Your task to perform on an android device: turn off improve location accuracy Image 0: 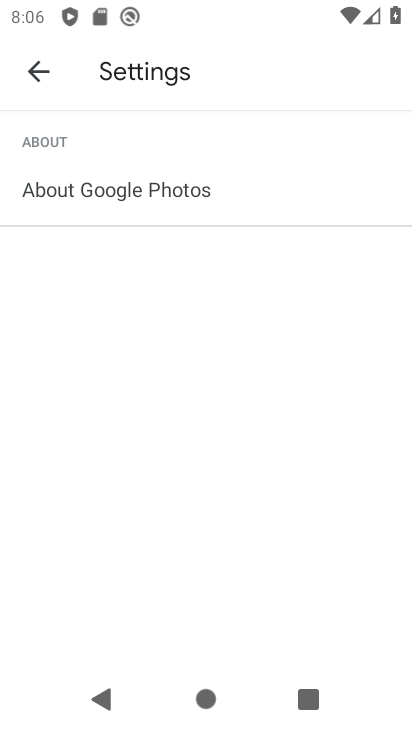
Step 0: press home button
Your task to perform on an android device: turn off improve location accuracy Image 1: 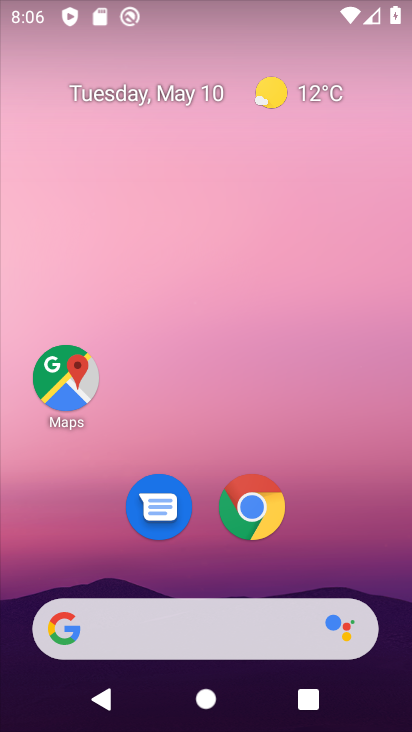
Step 1: drag from (67, 569) to (224, 72)
Your task to perform on an android device: turn off improve location accuracy Image 2: 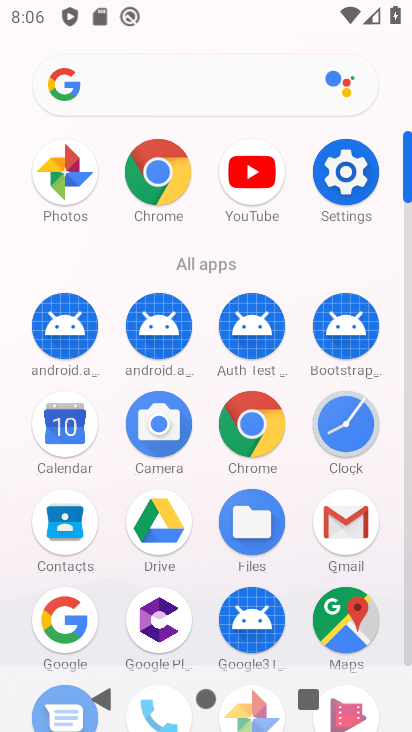
Step 2: click (326, 202)
Your task to perform on an android device: turn off improve location accuracy Image 3: 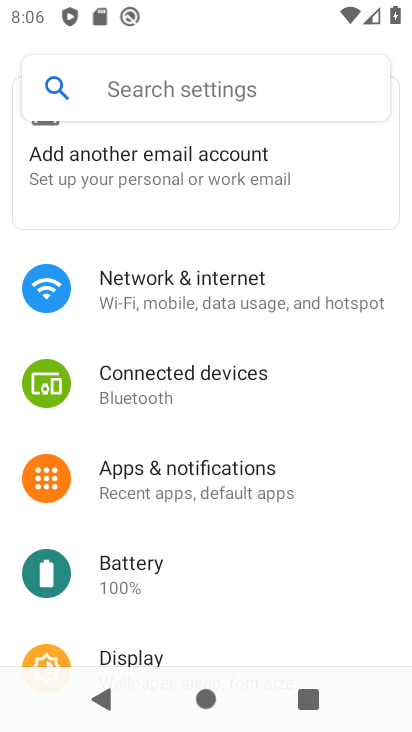
Step 3: drag from (242, 642) to (282, 251)
Your task to perform on an android device: turn off improve location accuracy Image 4: 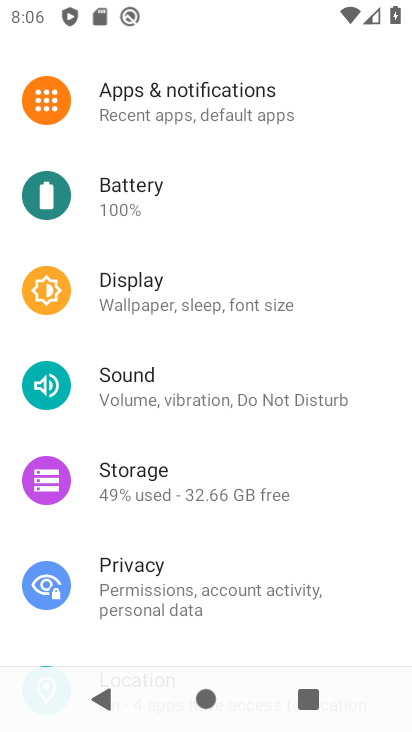
Step 4: drag from (188, 615) to (262, 266)
Your task to perform on an android device: turn off improve location accuracy Image 5: 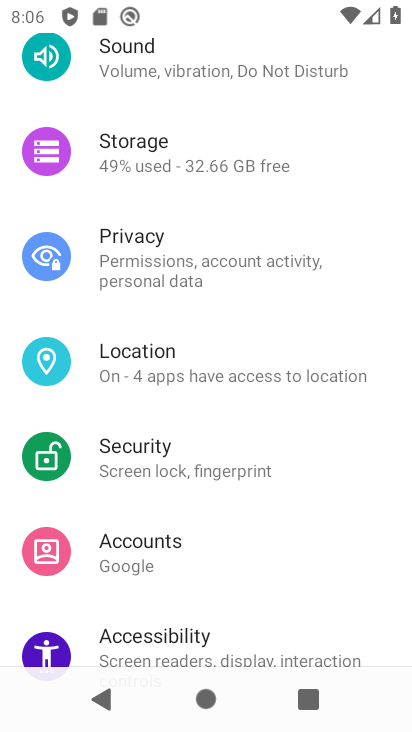
Step 5: drag from (203, 614) to (270, 348)
Your task to perform on an android device: turn off improve location accuracy Image 6: 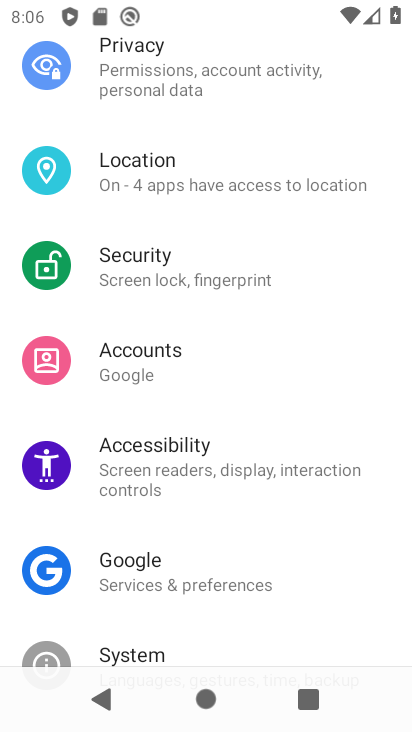
Step 6: drag from (209, 602) to (252, 625)
Your task to perform on an android device: turn off improve location accuracy Image 7: 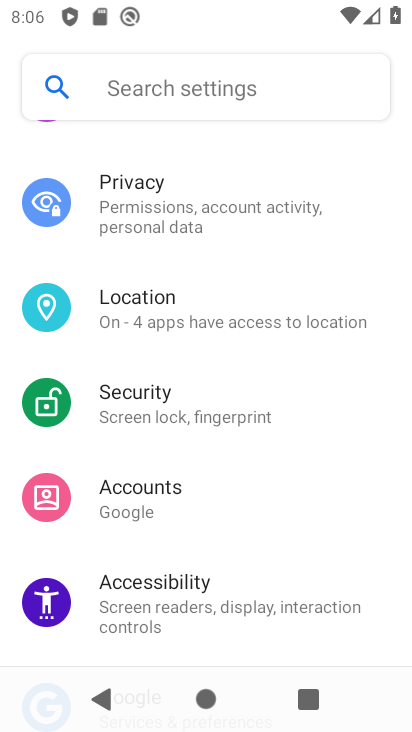
Step 7: drag from (259, 317) to (257, 499)
Your task to perform on an android device: turn off improve location accuracy Image 8: 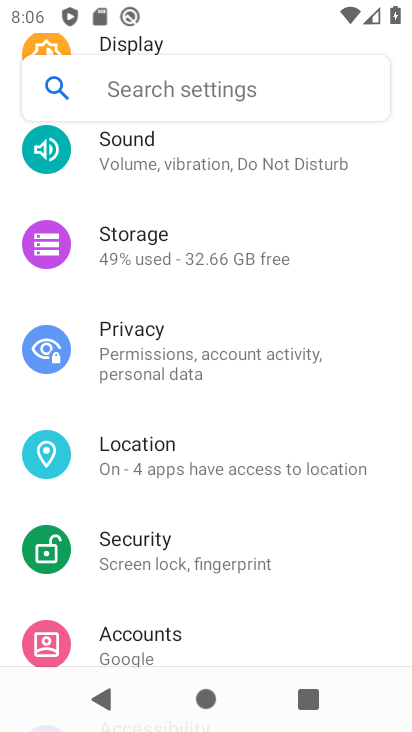
Step 8: drag from (218, 220) to (261, 392)
Your task to perform on an android device: turn off improve location accuracy Image 9: 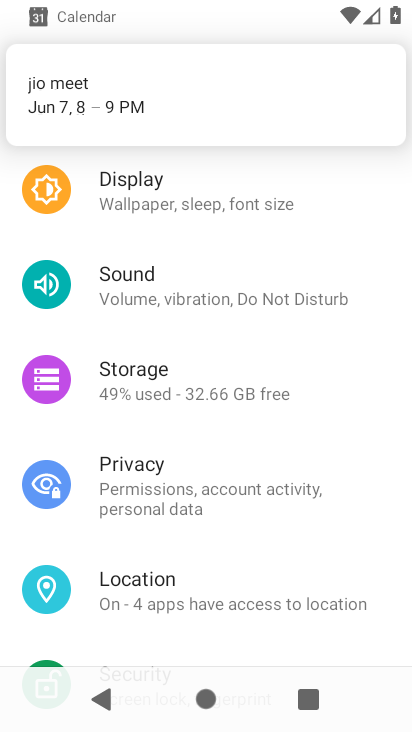
Step 9: click (190, 575)
Your task to perform on an android device: turn off improve location accuracy Image 10: 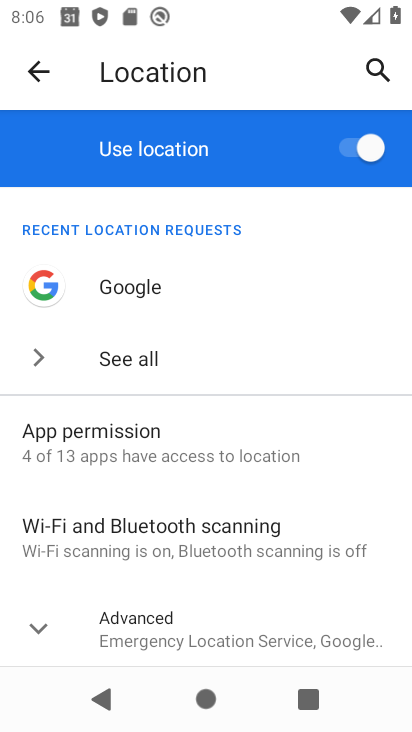
Step 10: click (165, 646)
Your task to perform on an android device: turn off improve location accuracy Image 11: 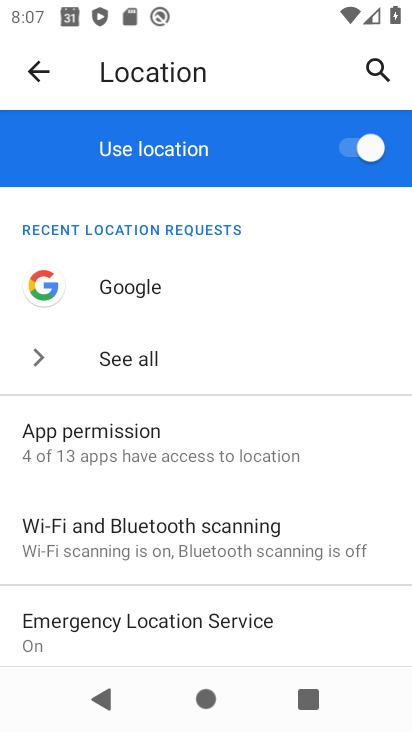
Step 11: drag from (261, 628) to (279, 305)
Your task to perform on an android device: turn off improve location accuracy Image 12: 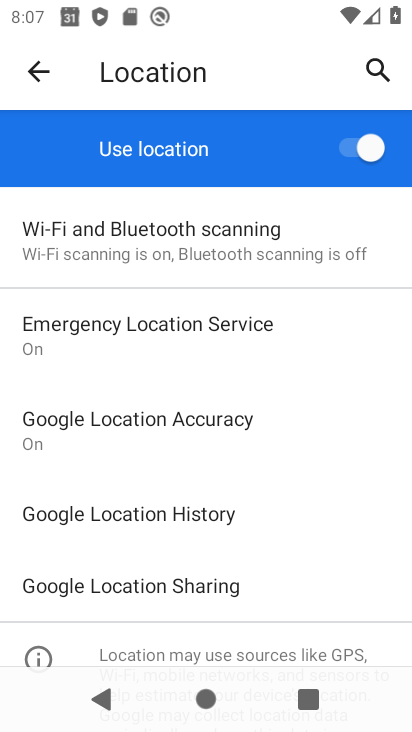
Step 12: click (130, 430)
Your task to perform on an android device: turn off improve location accuracy Image 13: 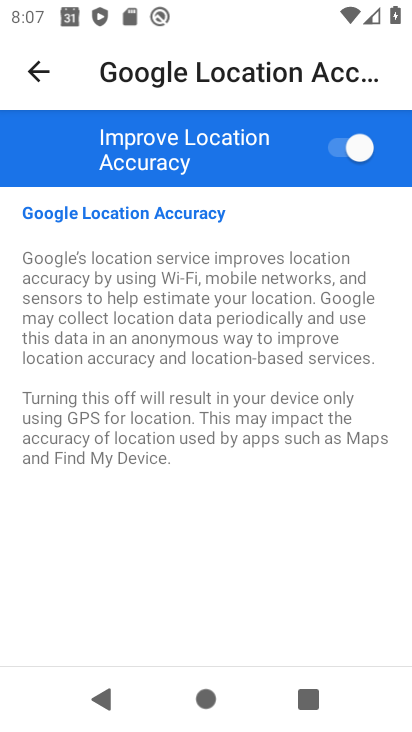
Step 13: click (329, 153)
Your task to perform on an android device: turn off improve location accuracy Image 14: 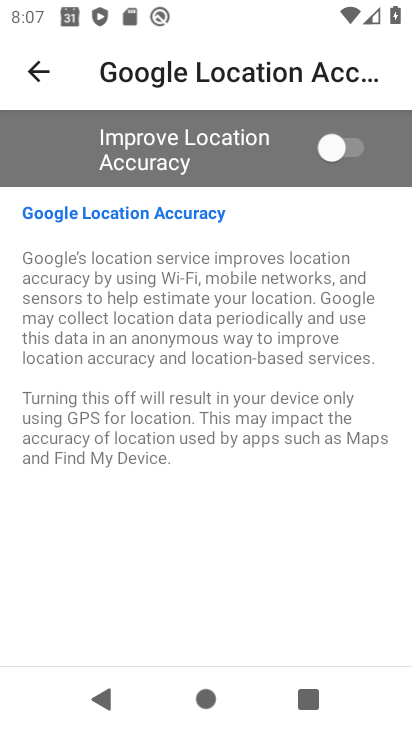
Step 14: task complete